Your task to perform on an android device: When is my next appointment? Image 0: 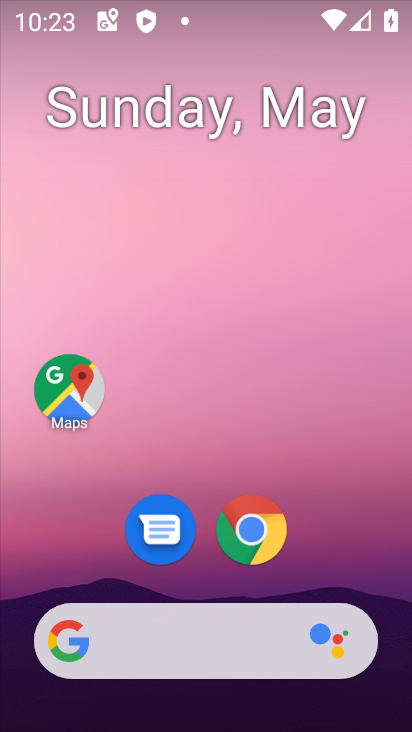
Step 0: drag from (189, 616) to (213, 195)
Your task to perform on an android device: When is my next appointment? Image 1: 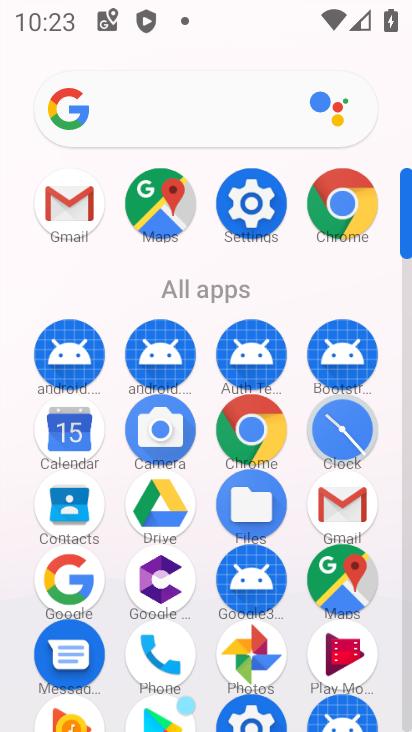
Step 1: click (65, 445)
Your task to perform on an android device: When is my next appointment? Image 2: 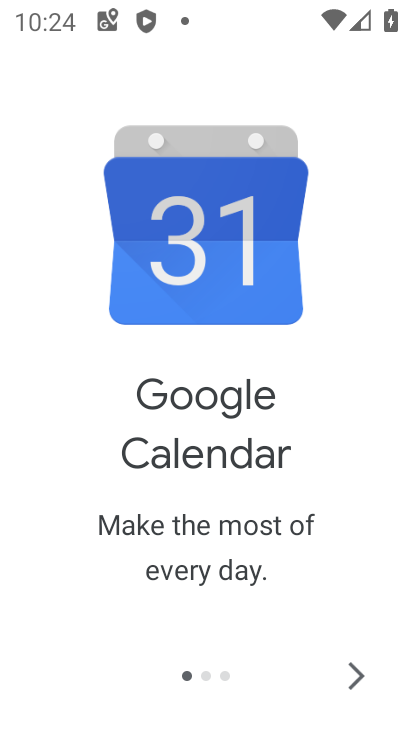
Step 2: click (361, 684)
Your task to perform on an android device: When is my next appointment? Image 3: 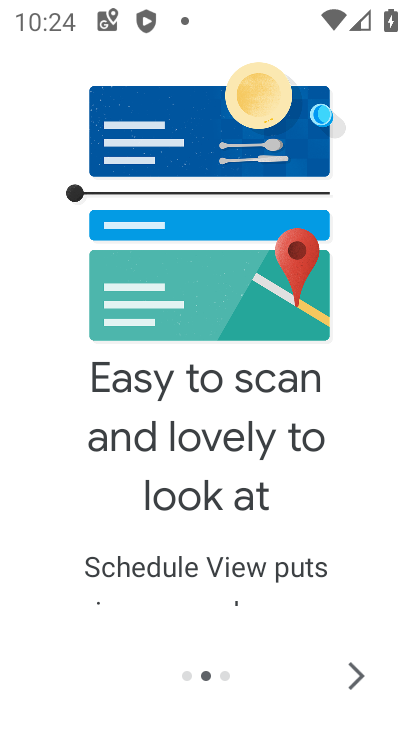
Step 3: click (356, 686)
Your task to perform on an android device: When is my next appointment? Image 4: 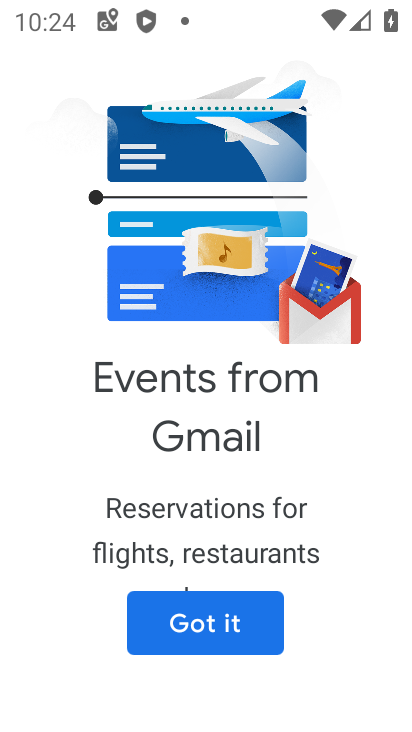
Step 4: click (241, 645)
Your task to perform on an android device: When is my next appointment? Image 5: 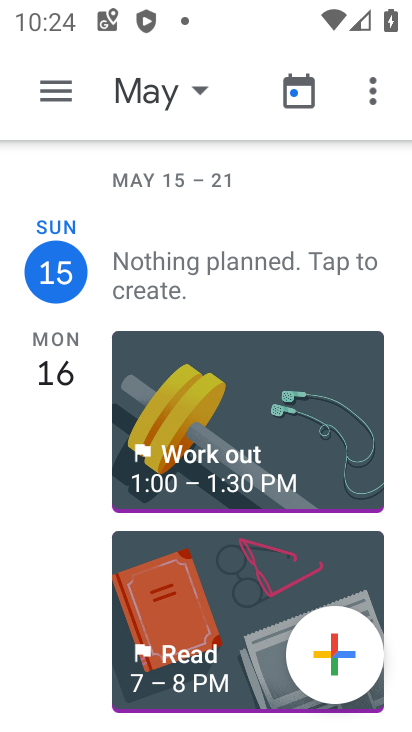
Step 5: click (68, 107)
Your task to perform on an android device: When is my next appointment? Image 6: 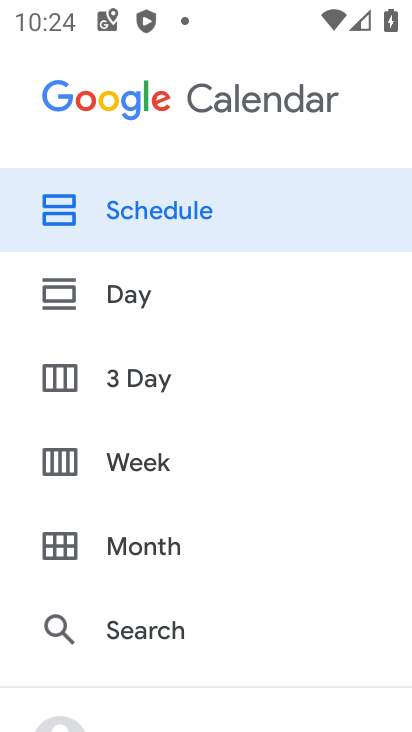
Step 6: click (135, 206)
Your task to perform on an android device: When is my next appointment? Image 7: 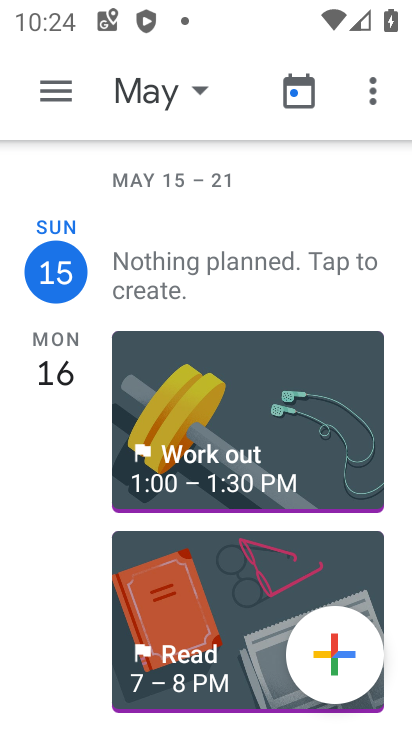
Step 7: task complete